Your task to perform on an android device: open chrome privacy settings Image 0: 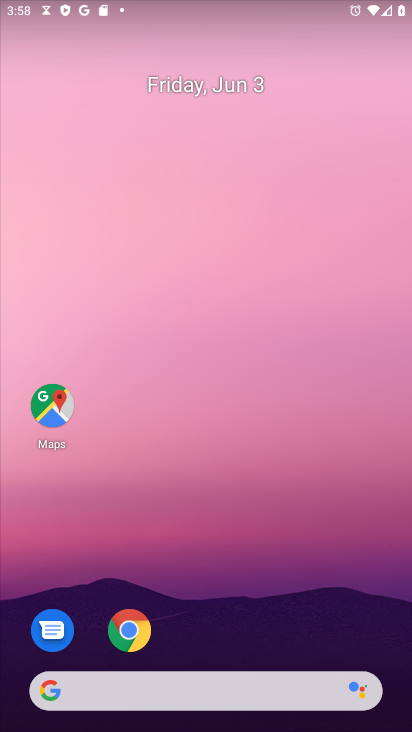
Step 0: drag from (285, 321) to (291, 21)
Your task to perform on an android device: open chrome privacy settings Image 1: 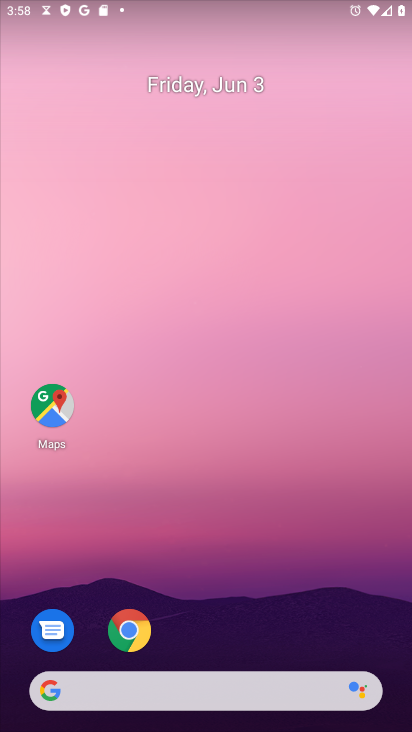
Step 1: drag from (222, 610) to (191, 31)
Your task to perform on an android device: open chrome privacy settings Image 2: 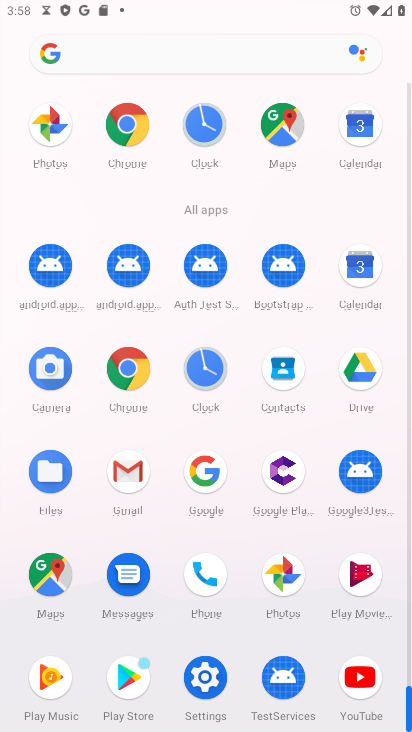
Step 2: drag from (6, 562) to (12, 290)
Your task to perform on an android device: open chrome privacy settings Image 3: 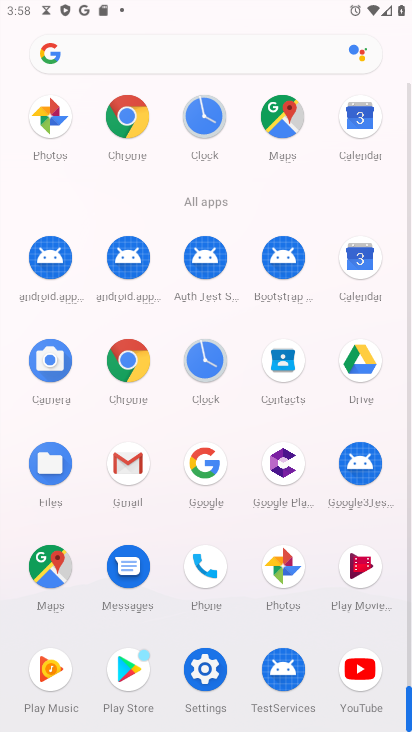
Step 3: click (127, 360)
Your task to perform on an android device: open chrome privacy settings Image 4: 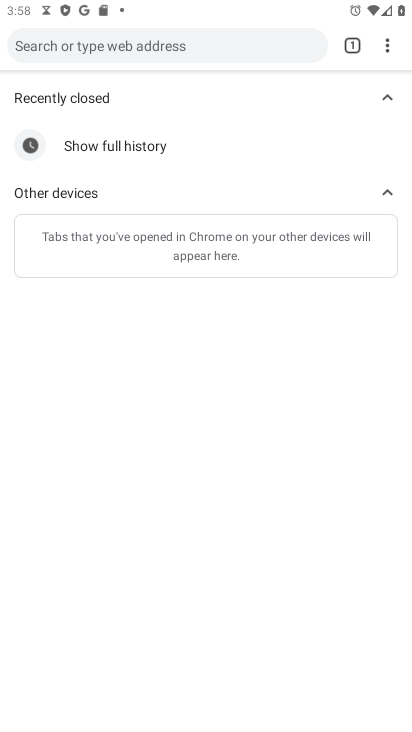
Step 4: drag from (388, 47) to (223, 422)
Your task to perform on an android device: open chrome privacy settings Image 5: 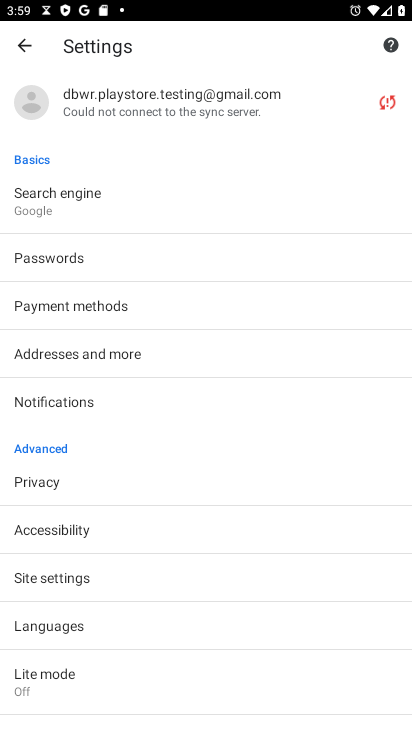
Step 5: click (57, 475)
Your task to perform on an android device: open chrome privacy settings Image 6: 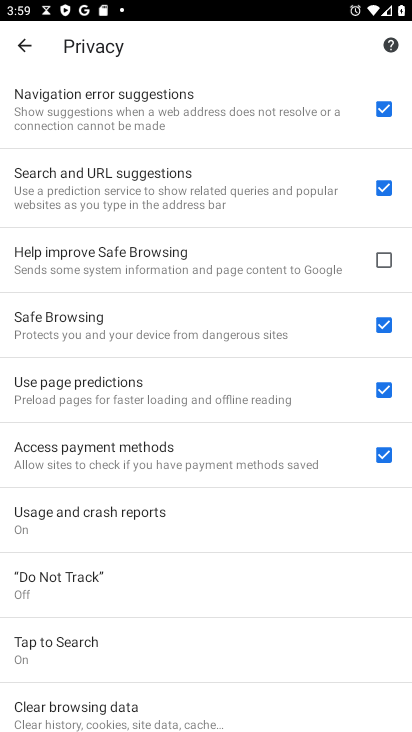
Step 6: task complete